Your task to perform on an android device: Add logitech g pro to the cart on bestbuy.com, then select checkout. Image 0: 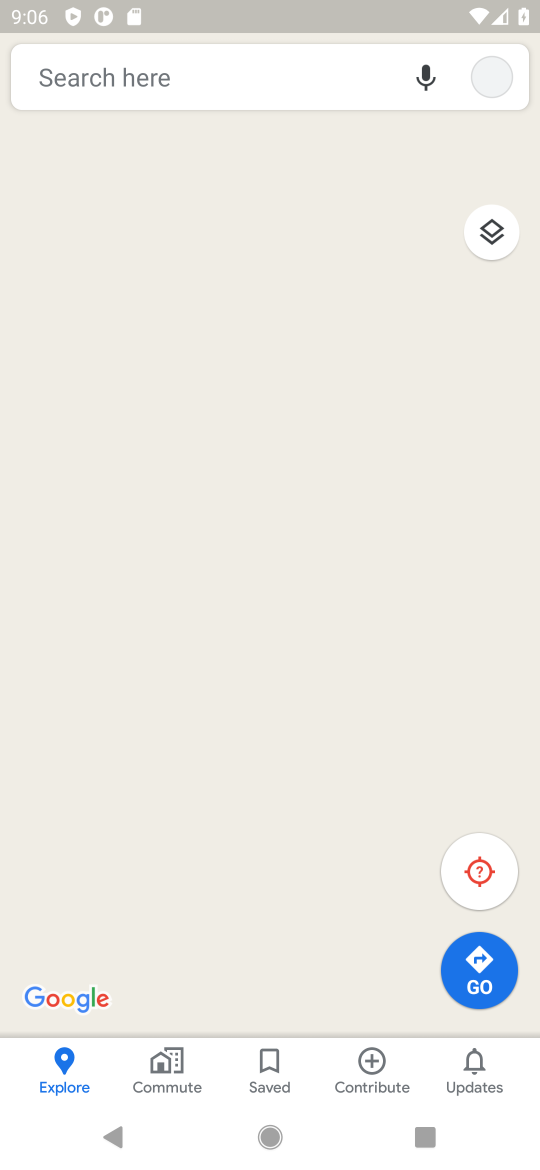
Step 0: click (261, 1028)
Your task to perform on an android device: Add logitech g pro to the cart on bestbuy.com, then select checkout. Image 1: 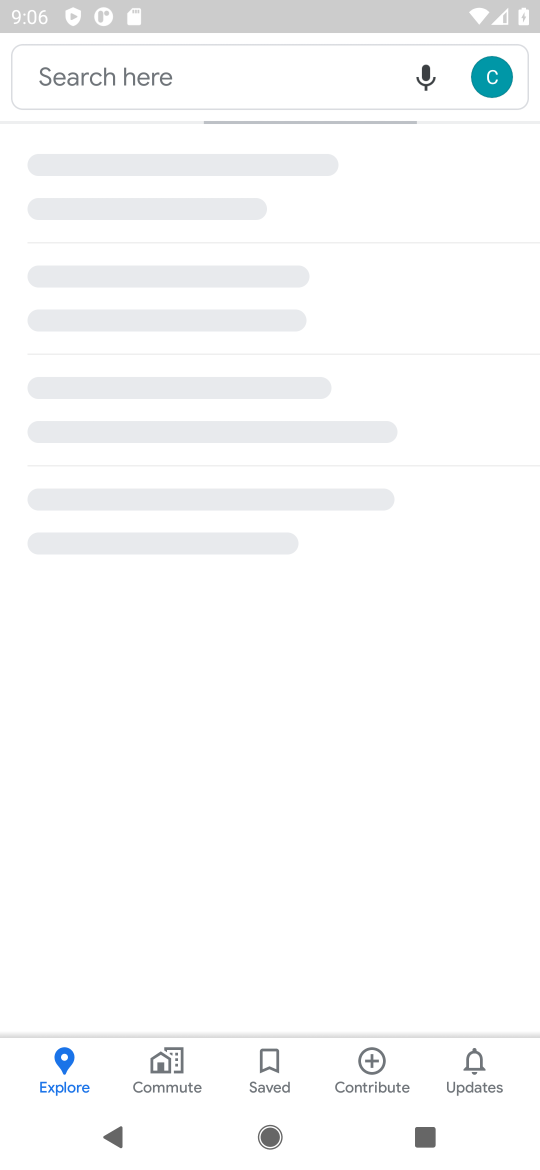
Step 1: press home button
Your task to perform on an android device: Add logitech g pro to the cart on bestbuy.com, then select checkout. Image 2: 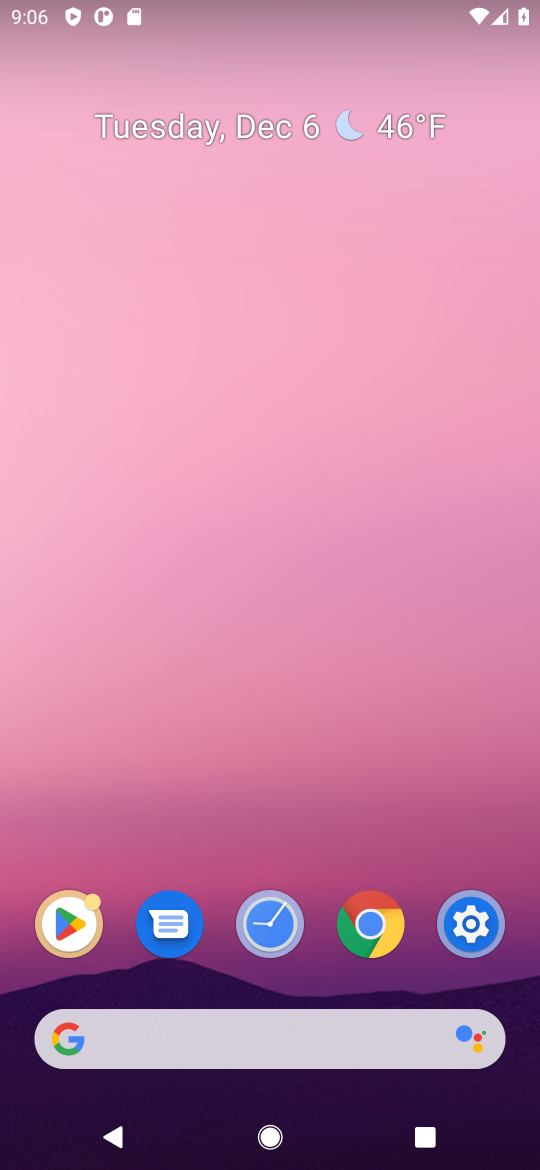
Step 2: click (168, 1047)
Your task to perform on an android device: Add logitech g pro to the cart on bestbuy.com, then select checkout. Image 3: 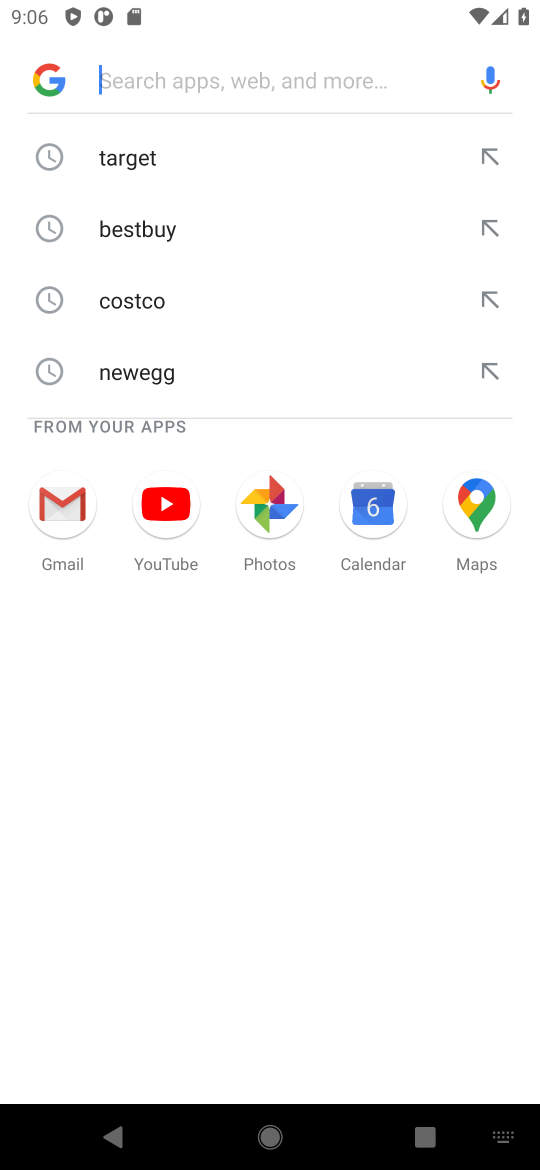
Step 3: type "bestbuy"
Your task to perform on an android device: Add logitech g pro to the cart on bestbuy.com, then select checkout. Image 4: 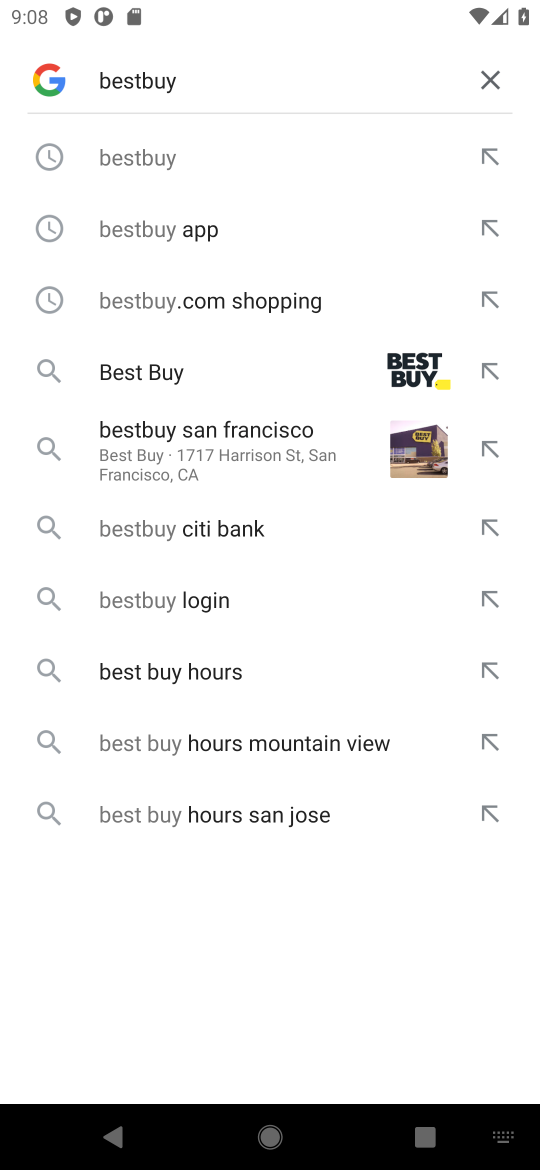
Step 4: click (211, 160)
Your task to perform on an android device: Add logitech g pro to the cart on bestbuy.com, then select checkout. Image 5: 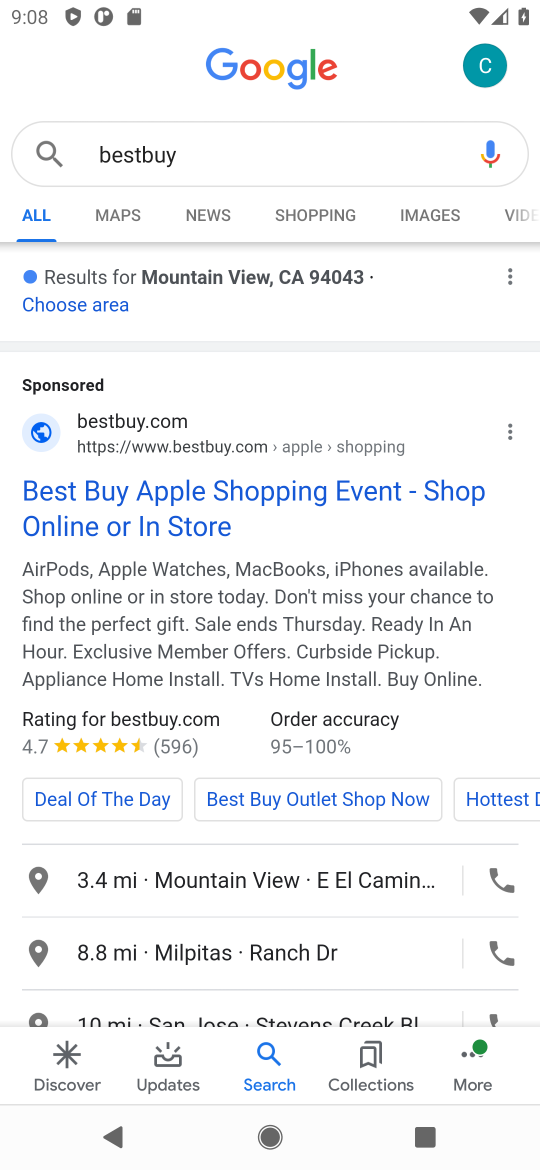
Step 5: click (206, 514)
Your task to perform on an android device: Add logitech g pro to the cart on bestbuy.com, then select checkout. Image 6: 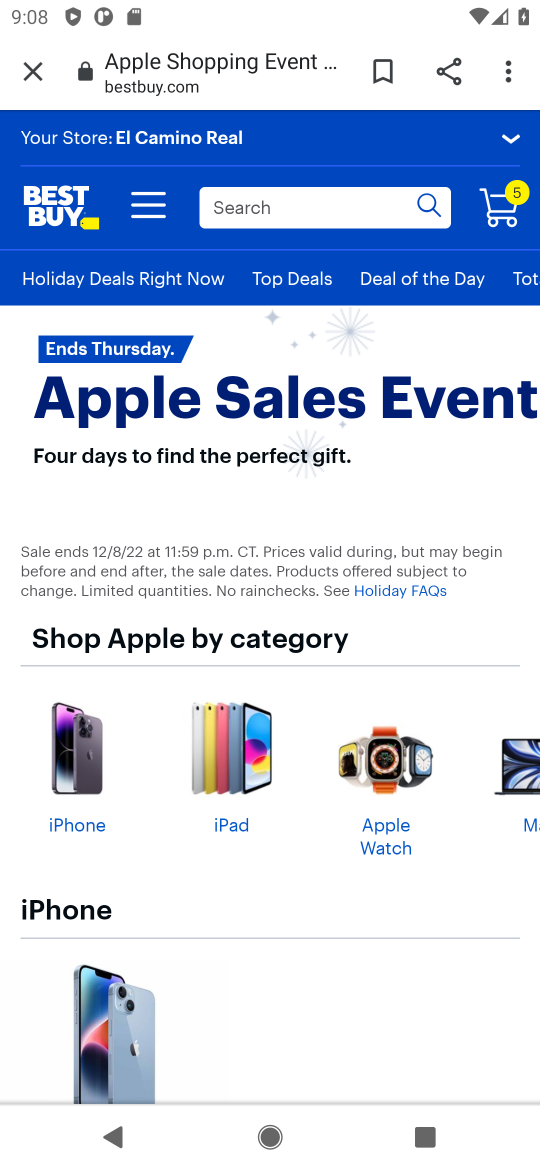
Step 6: task complete